Your task to perform on an android device: Search for Mexican restaurants on Maps Image 0: 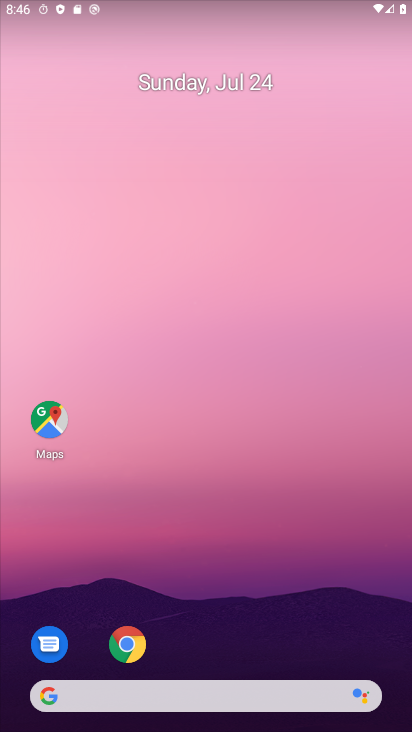
Step 0: click (57, 411)
Your task to perform on an android device: Search for Mexican restaurants on Maps Image 1: 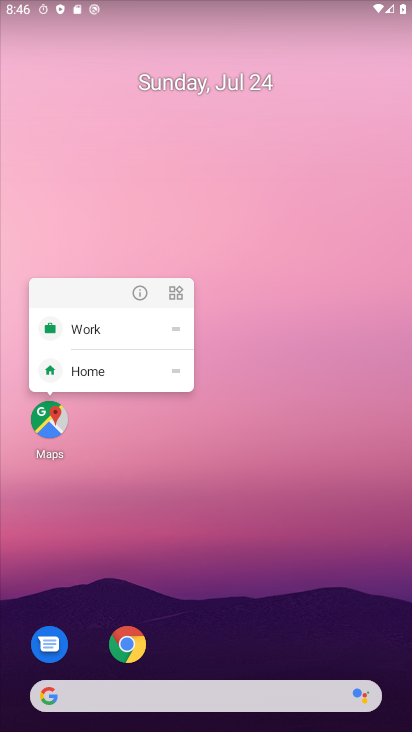
Step 1: click (57, 420)
Your task to perform on an android device: Search for Mexican restaurants on Maps Image 2: 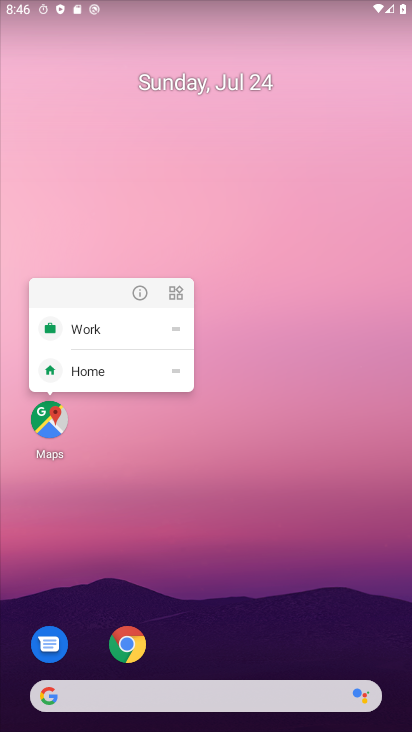
Step 2: click (40, 428)
Your task to perform on an android device: Search for Mexican restaurants on Maps Image 3: 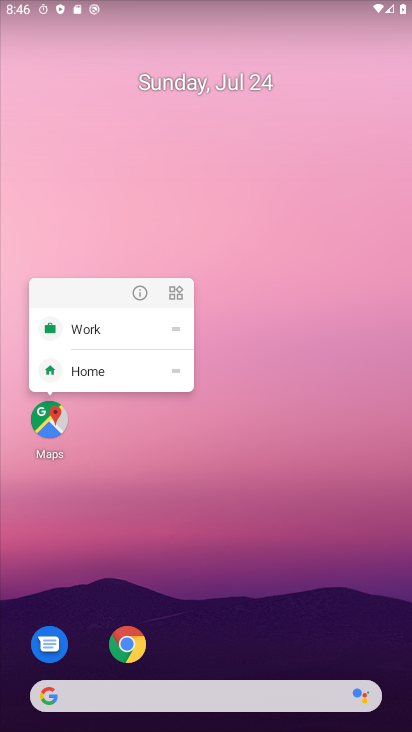
Step 3: click (49, 410)
Your task to perform on an android device: Search for Mexican restaurants on Maps Image 4: 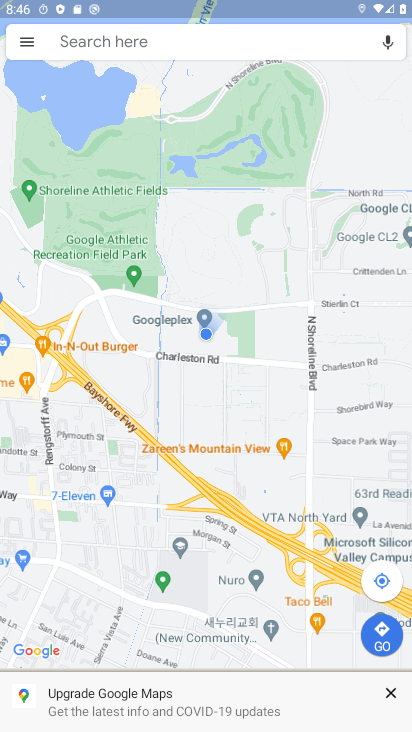
Step 4: click (120, 40)
Your task to perform on an android device: Search for Mexican restaurants on Maps Image 5: 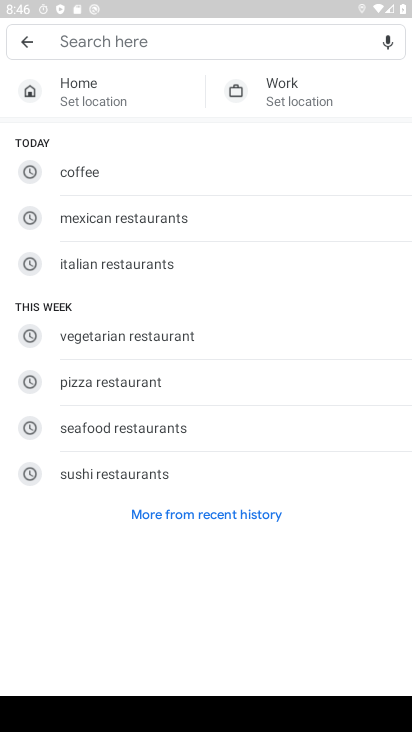
Step 5: click (105, 217)
Your task to perform on an android device: Search for Mexican restaurants on Maps Image 6: 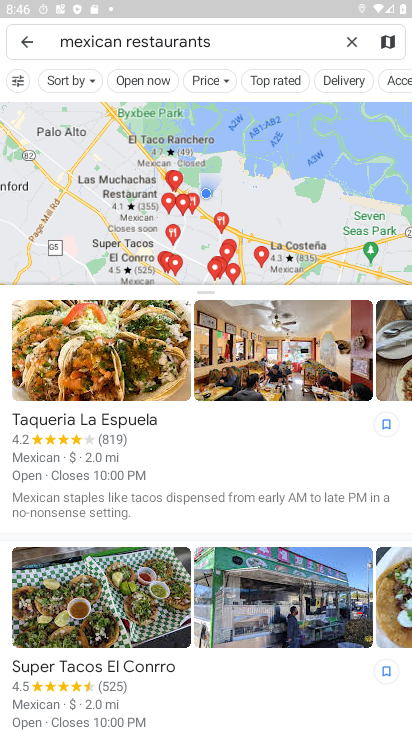
Step 6: task complete